Your task to perform on an android device: Add "razer blade" to the cart on ebay, then select checkout. Image 0: 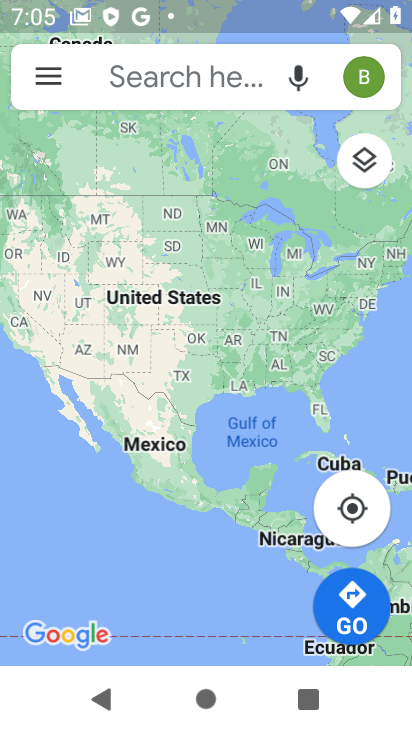
Step 0: press home button
Your task to perform on an android device: Add "razer blade" to the cart on ebay, then select checkout. Image 1: 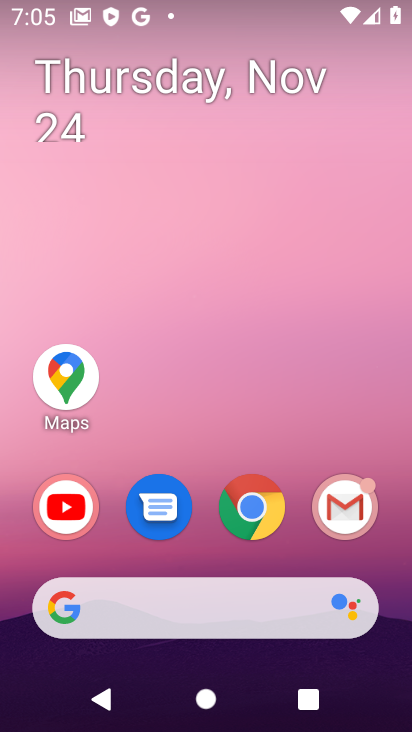
Step 1: click (267, 539)
Your task to perform on an android device: Add "razer blade" to the cart on ebay, then select checkout. Image 2: 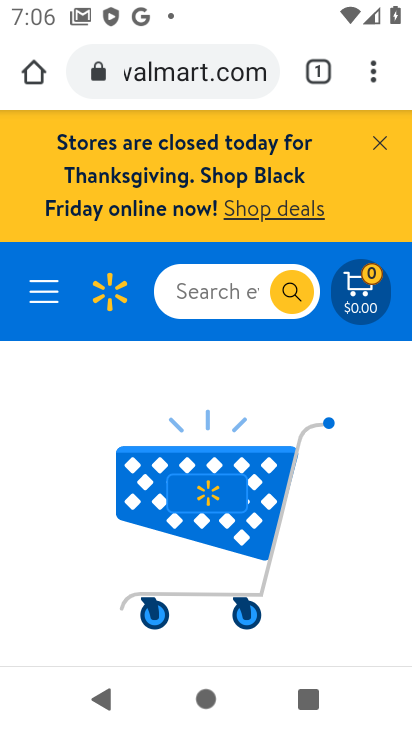
Step 2: click (181, 73)
Your task to perform on an android device: Add "razer blade" to the cart on ebay, then select checkout. Image 3: 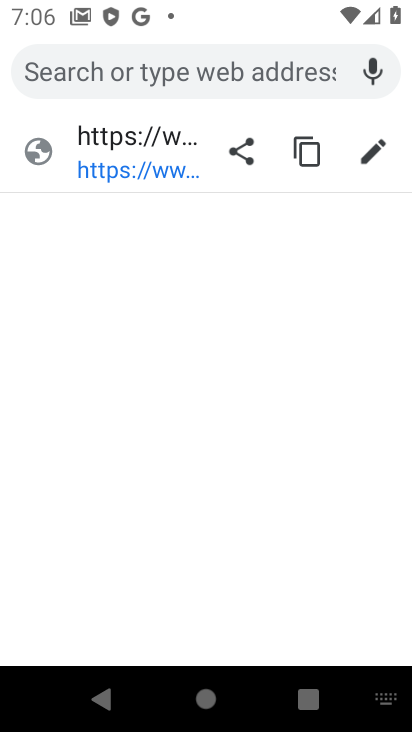
Step 3: type "ebay"
Your task to perform on an android device: Add "razer blade" to the cart on ebay, then select checkout. Image 4: 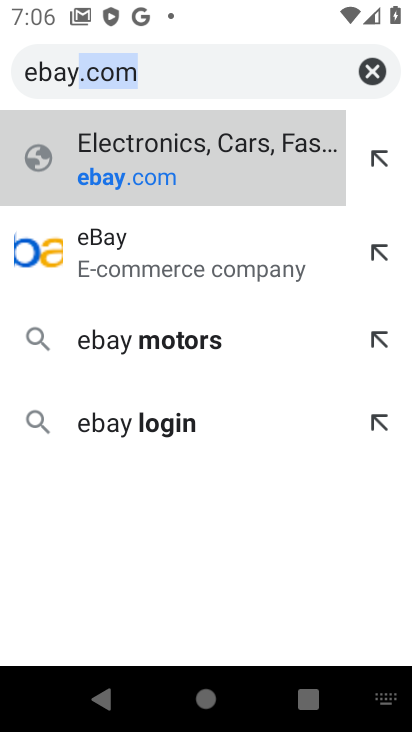
Step 4: click (182, 181)
Your task to perform on an android device: Add "razer blade" to the cart on ebay, then select checkout. Image 5: 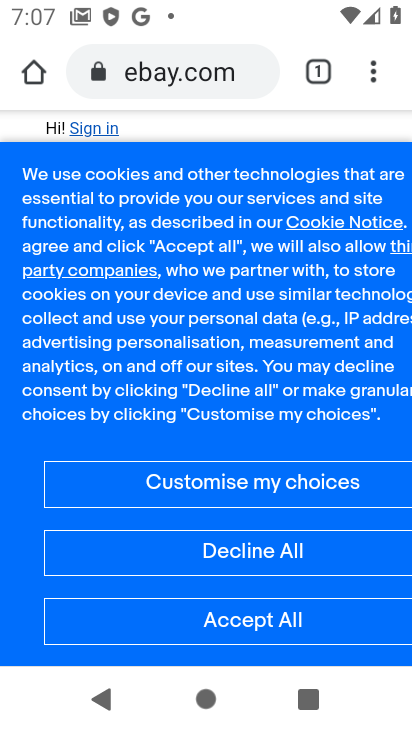
Step 5: click (266, 614)
Your task to perform on an android device: Add "razer blade" to the cart on ebay, then select checkout. Image 6: 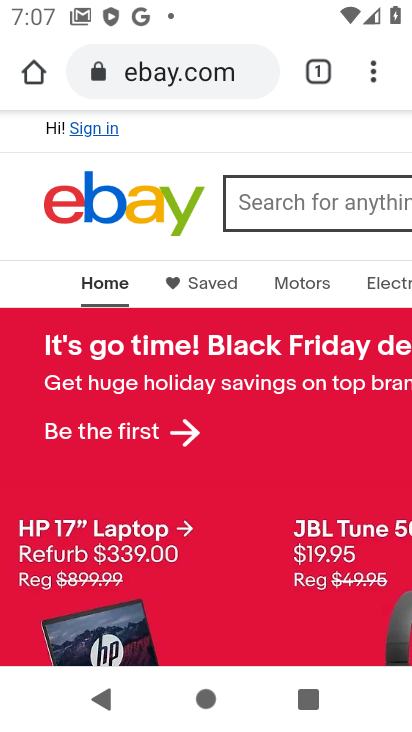
Step 6: click (298, 204)
Your task to perform on an android device: Add "razer blade" to the cart on ebay, then select checkout. Image 7: 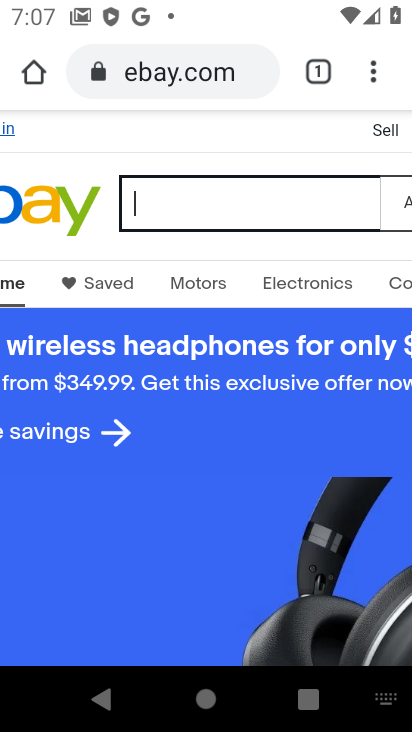
Step 7: type "razer blade"
Your task to perform on an android device: Add "razer blade" to the cart on ebay, then select checkout. Image 8: 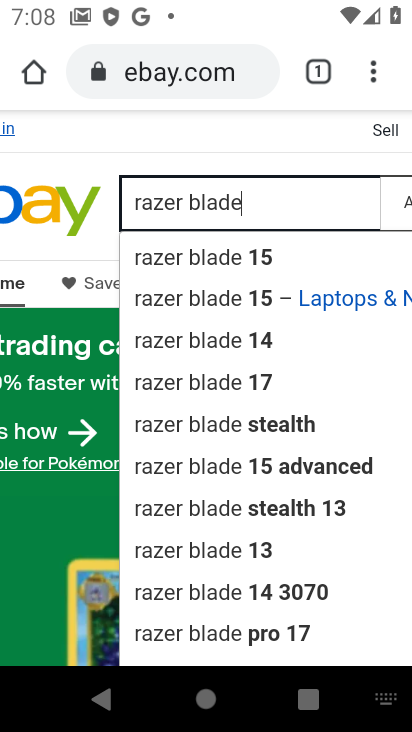
Step 8: press enter
Your task to perform on an android device: Add "razer blade" to the cart on ebay, then select checkout. Image 9: 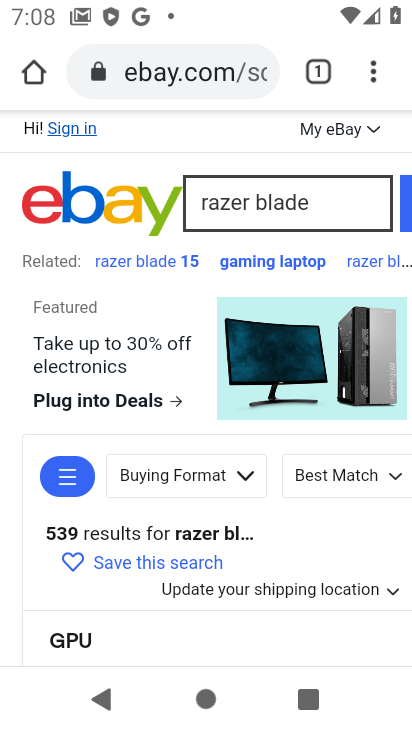
Step 9: drag from (293, 539) to (277, 67)
Your task to perform on an android device: Add "razer blade" to the cart on ebay, then select checkout. Image 10: 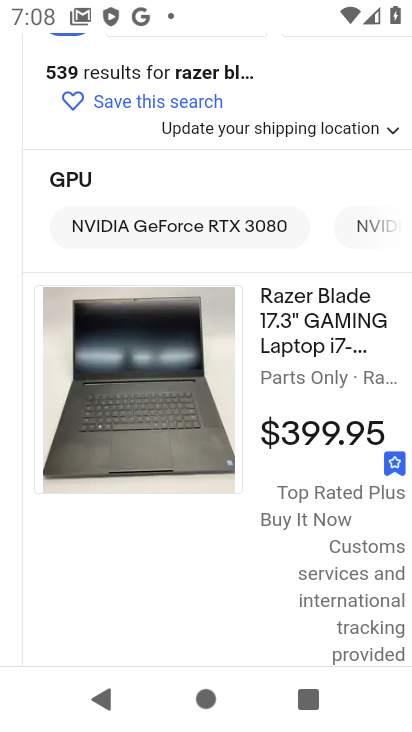
Step 10: drag from (262, 547) to (247, 285)
Your task to perform on an android device: Add "razer blade" to the cart on ebay, then select checkout. Image 11: 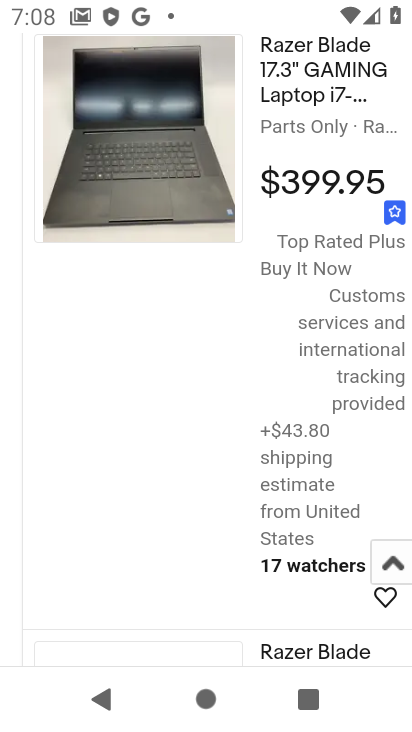
Step 11: click (267, 333)
Your task to perform on an android device: Add "razer blade" to the cart on ebay, then select checkout. Image 12: 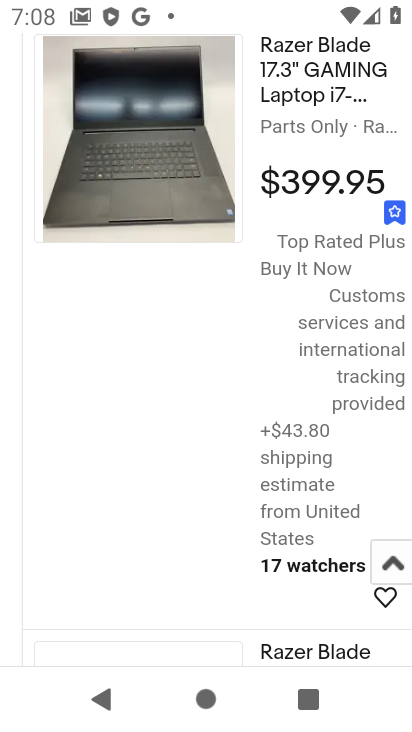
Step 12: click (317, 391)
Your task to perform on an android device: Add "razer blade" to the cart on ebay, then select checkout. Image 13: 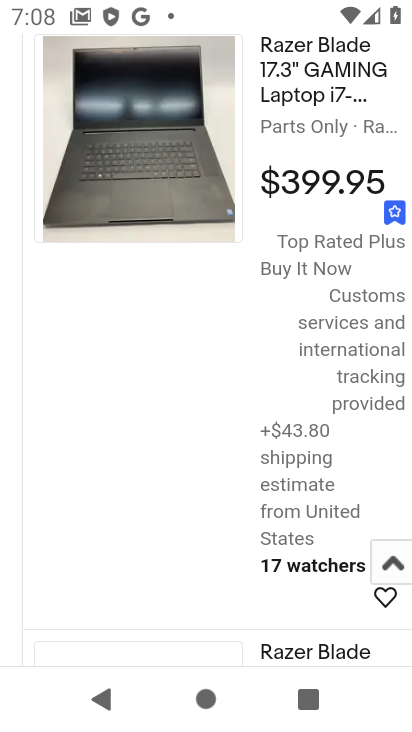
Step 13: click (355, 80)
Your task to perform on an android device: Add "razer blade" to the cart on ebay, then select checkout. Image 14: 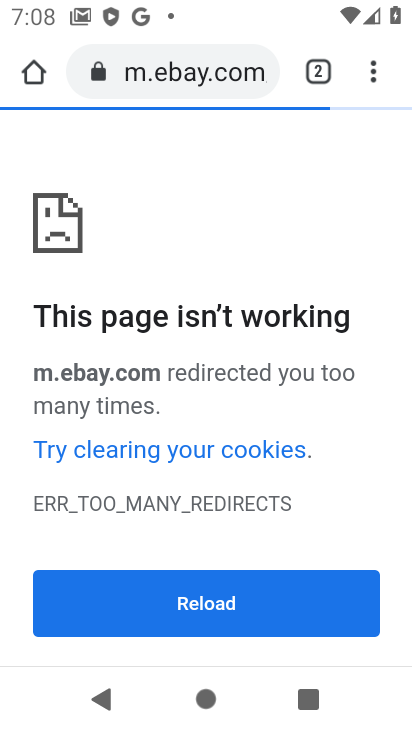
Step 14: task complete